Your task to perform on an android device: open sync settings in chrome Image 0: 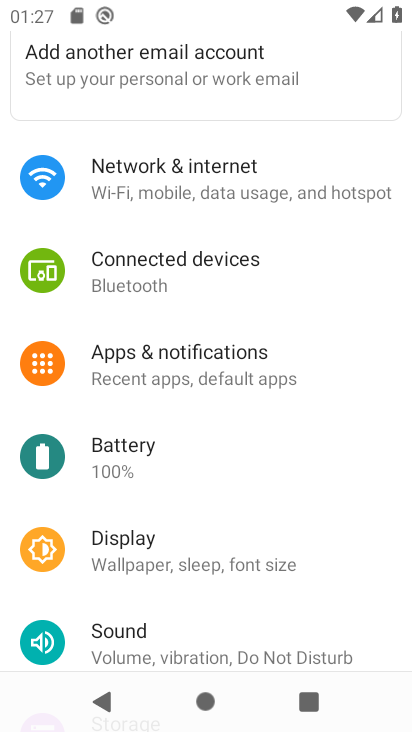
Step 0: press home button
Your task to perform on an android device: open sync settings in chrome Image 1: 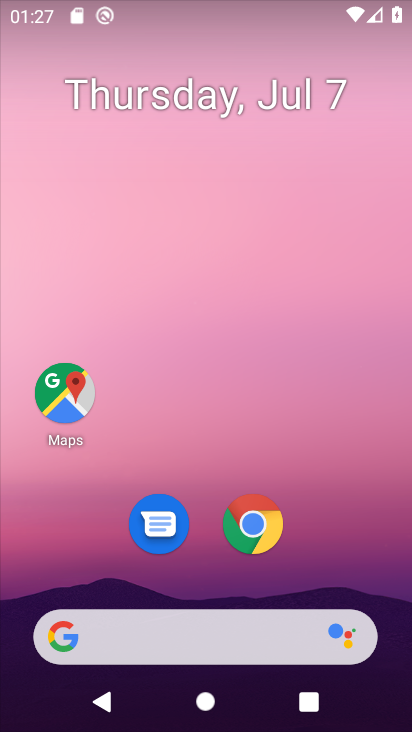
Step 1: click (251, 521)
Your task to perform on an android device: open sync settings in chrome Image 2: 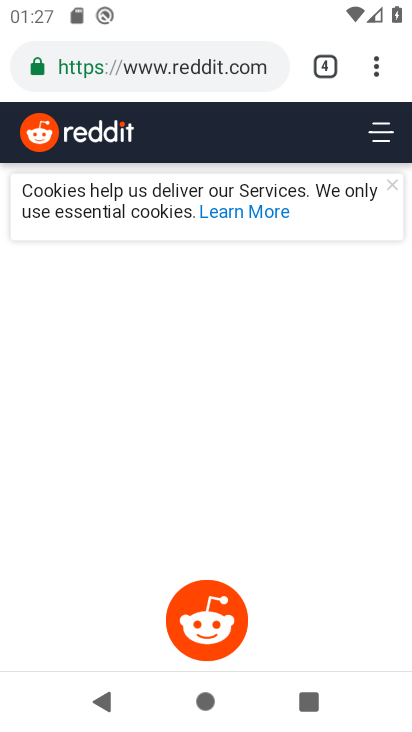
Step 2: click (378, 70)
Your task to perform on an android device: open sync settings in chrome Image 3: 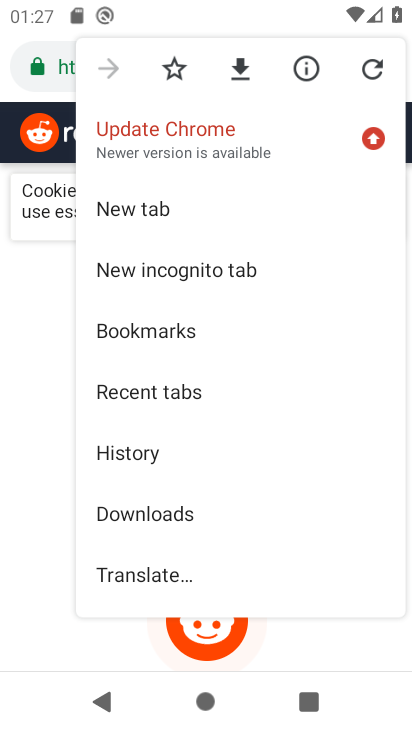
Step 3: drag from (231, 512) to (223, 191)
Your task to perform on an android device: open sync settings in chrome Image 4: 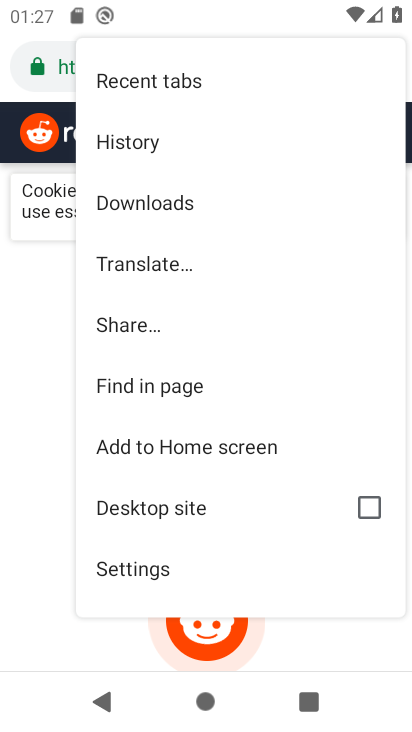
Step 4: click (140, 566)
Your task to perform on an android device: open sync settings in chrome Image 5: 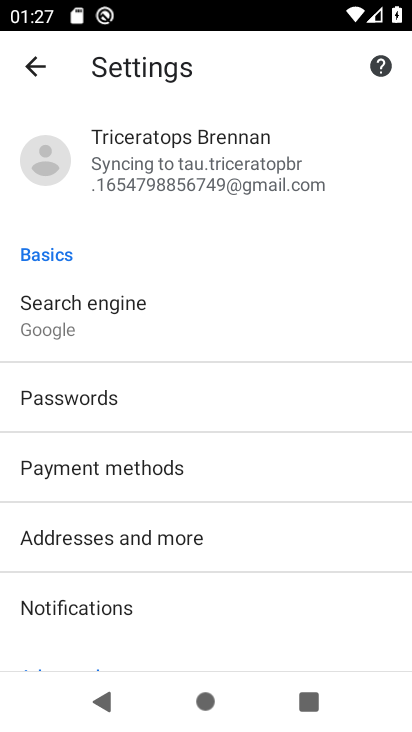
Step 5: click (232, 164)
Your task to perform on an android device: open sync settings in chrome Image 6: 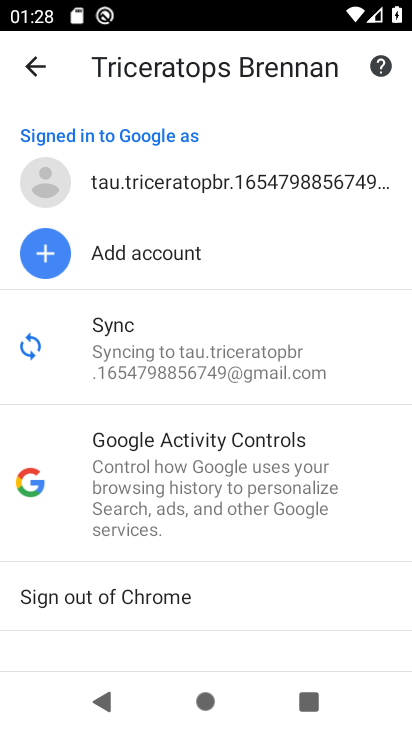
Step 6: click (100, 339)
Your task to perform on an android device: open sync settings in chrome Image 7: 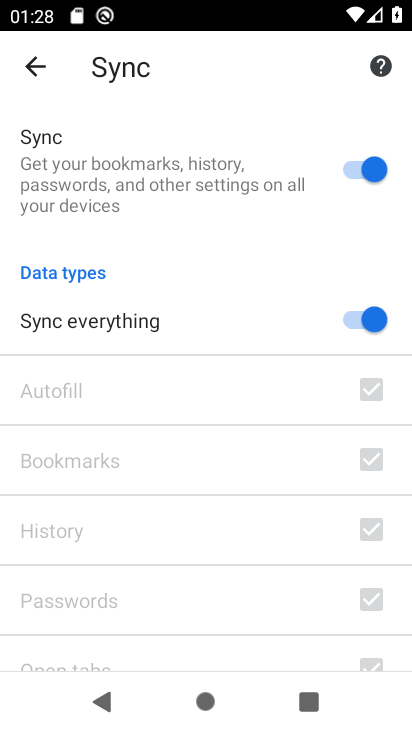
Step 7: task complete